Your task to perform on an android device: delete a single message in the gmail app Image 0: 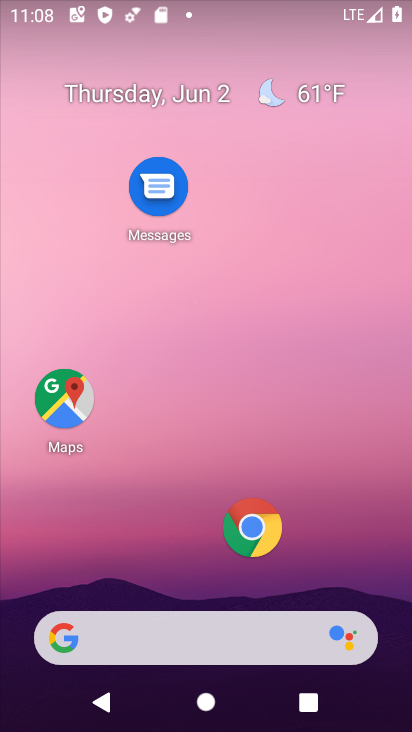
Step 0: press home button
Your task to perform on an android device: delete a single message in the gmail app Image 1: 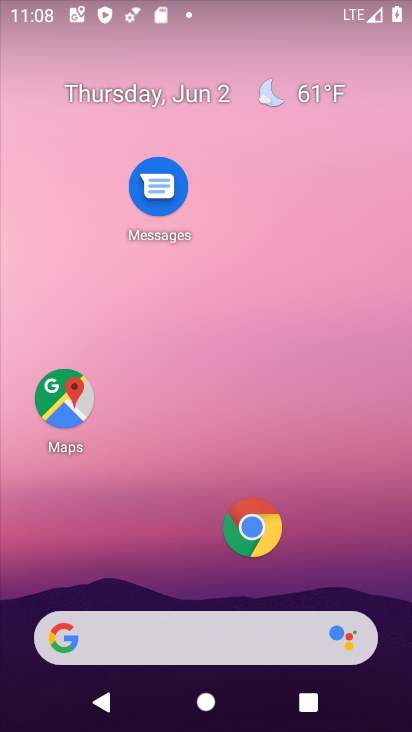
Step 1: drag from (208, 589) to (218, 69)
Your task to perform on an android device: delete a single message in the gmail app Image 2: 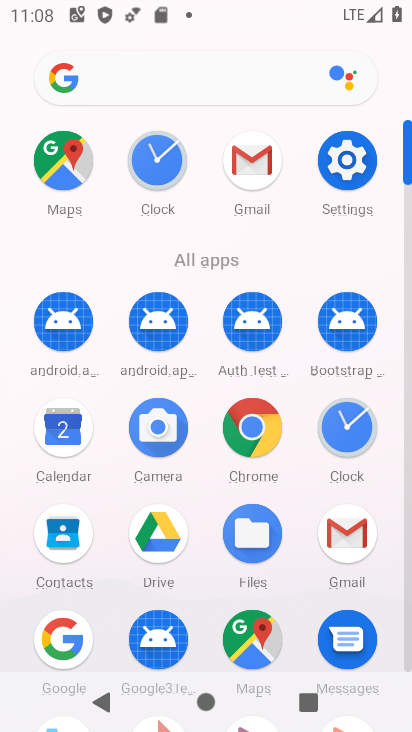
Step 2: click (249, 150)
Your task to perform on an android device: delete a single message in the gmail app Image 3: 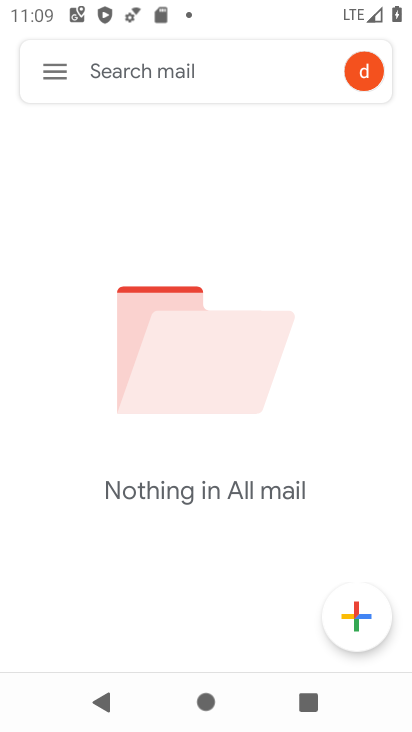
Step 3: task complete